Your task to perform on an android device: turn off smart reply in the gmail app Image 0: 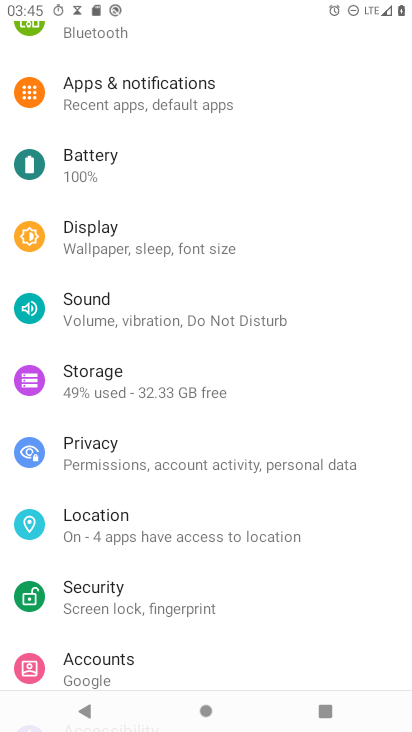
Step 0: press home button
Your task to perform on an android device: turn off smart reply in the gmail app Image 1: 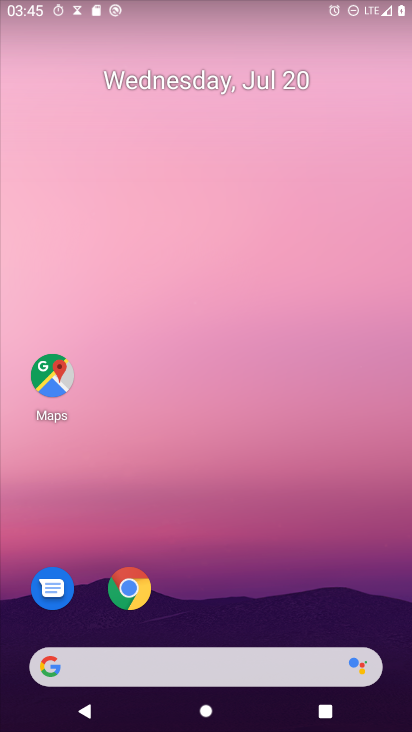
Step 1: drag from (201, 622) to (122, 110)
Your task to perform on an android device: turn off smart reply in the gmail app Image 2: 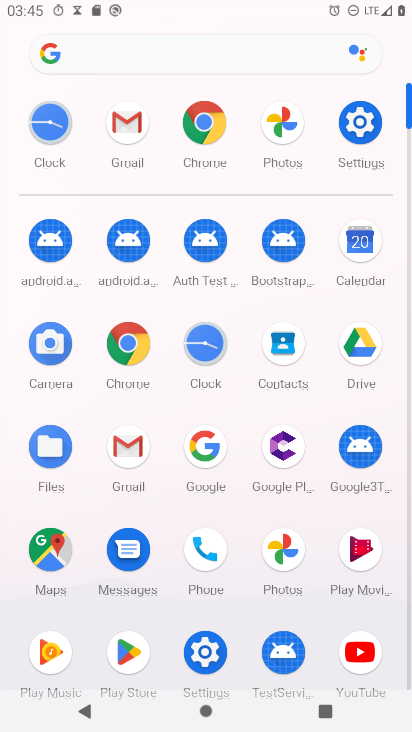
Step 2: click (145, 448)
Your task to perform on an android device: turn off smart reply in the gmail app Image 3: 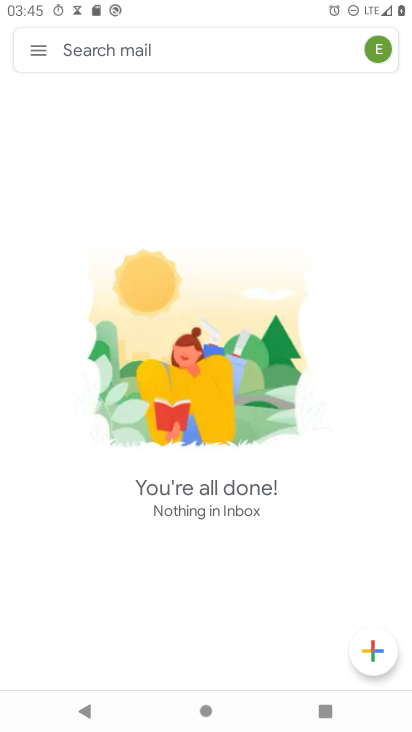
Step 3: click (36, 51)
Your task to perform on an android device: turn off smart reply in the gmail app Image 4: 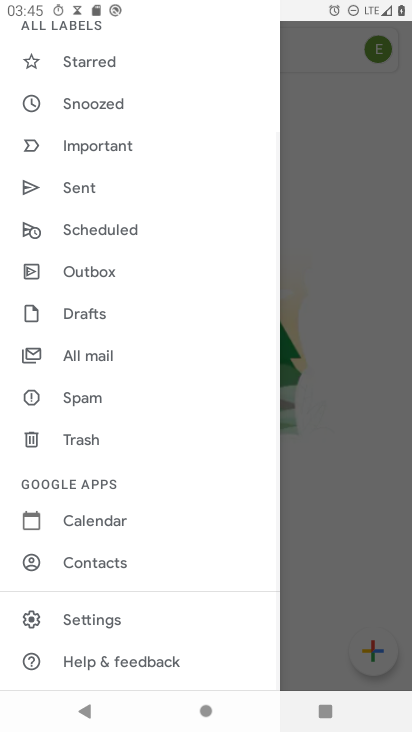
Step 4: click (107, 609)
Your task to perform on an android device: turn off smart reply in the gmail app Image 5: 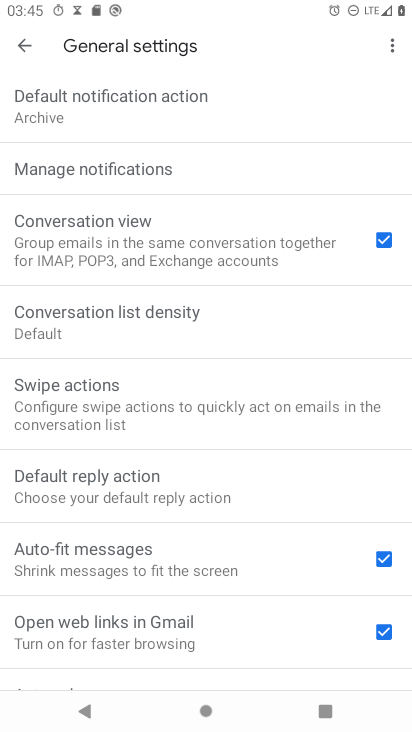
Step 5: drag from (135, 636) to (86, 307)
Your task to perform on an android device: turn off smart reply in the gmail app Image 6: 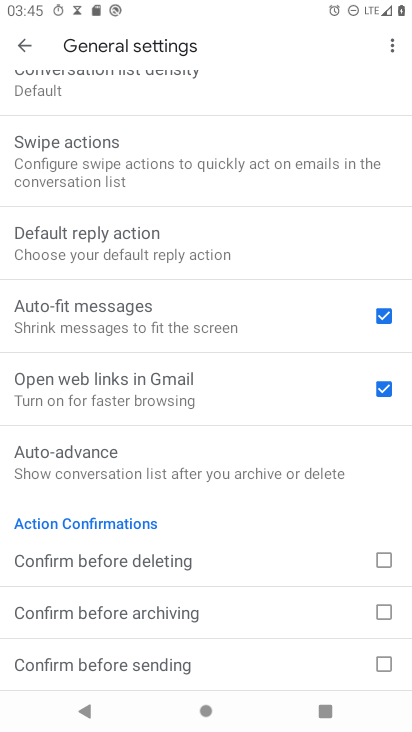
Step 6: click (28, 50)
Your task to perform on an android device: turn off smart reply in the gmail app Image 7: 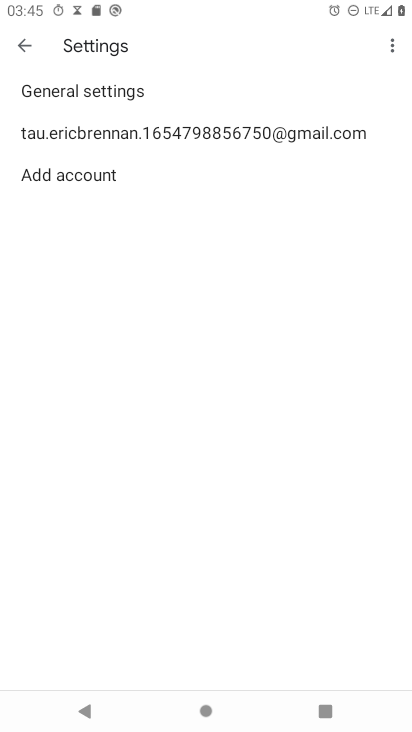
Step 7: click (75, 140)
Your task to perform on an android device: turn off smart reply in the gmail app Image 8: 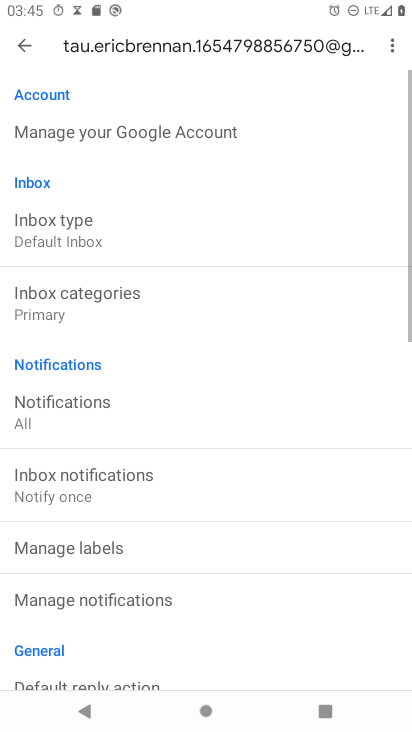
Step 8: drag from (235, 637) to (180, 225)
Your task to perform on an android device: turn off smart reply in the gmail app Image 9: 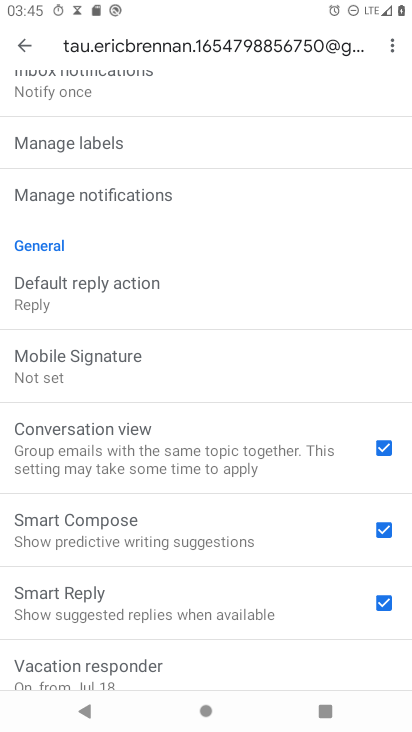
Step 9: click (374, 595)
Your task to perform on an android device: turn off smart reply in the gmail app Image 10: 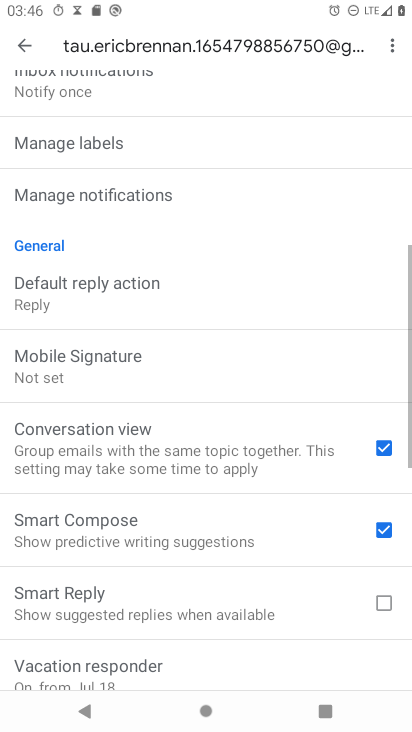
Step 10: task complete